Your task to perform on an android device: Turn off the flashlight Image 0: 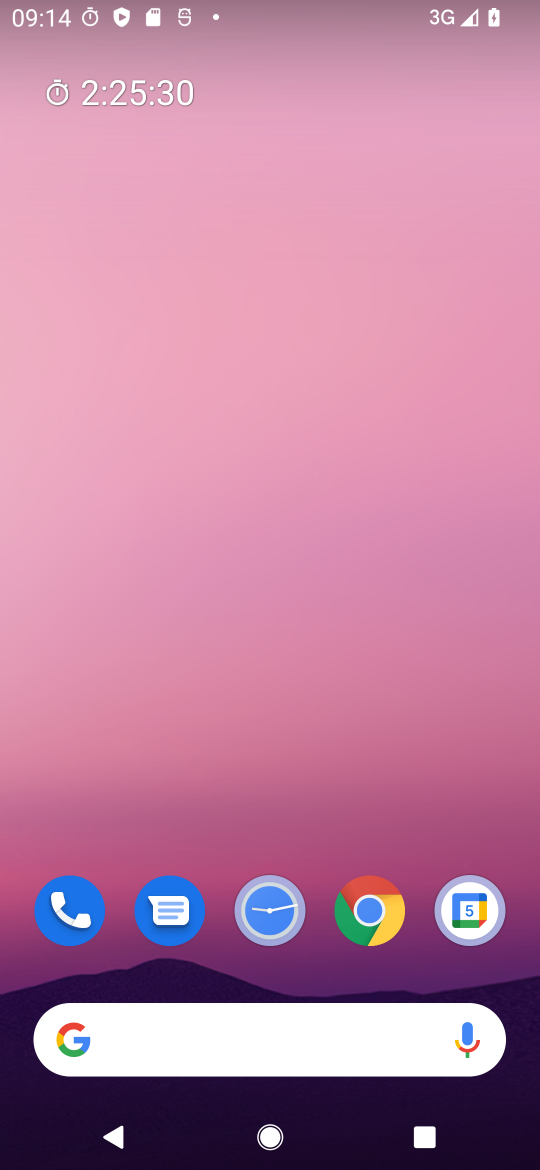
Step 0: drag from (261, 6) to (446, 1149)
Your task to perform on an android device: Turn off the flashlight Image 1: 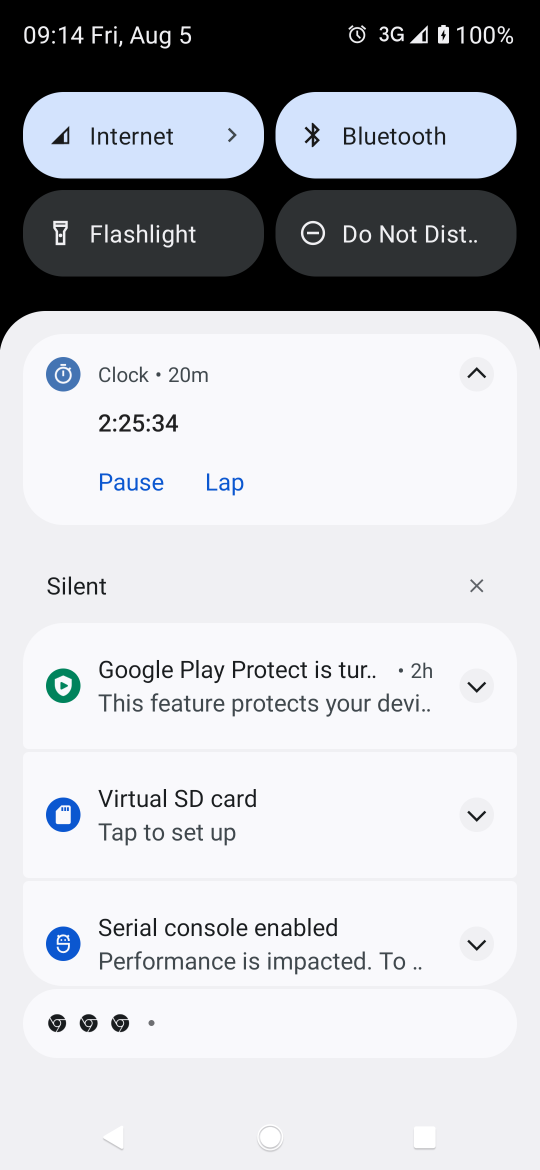
Step 1: click (146, 231)
Your task to perform on an android device: Turn off the flashlight Image 2: 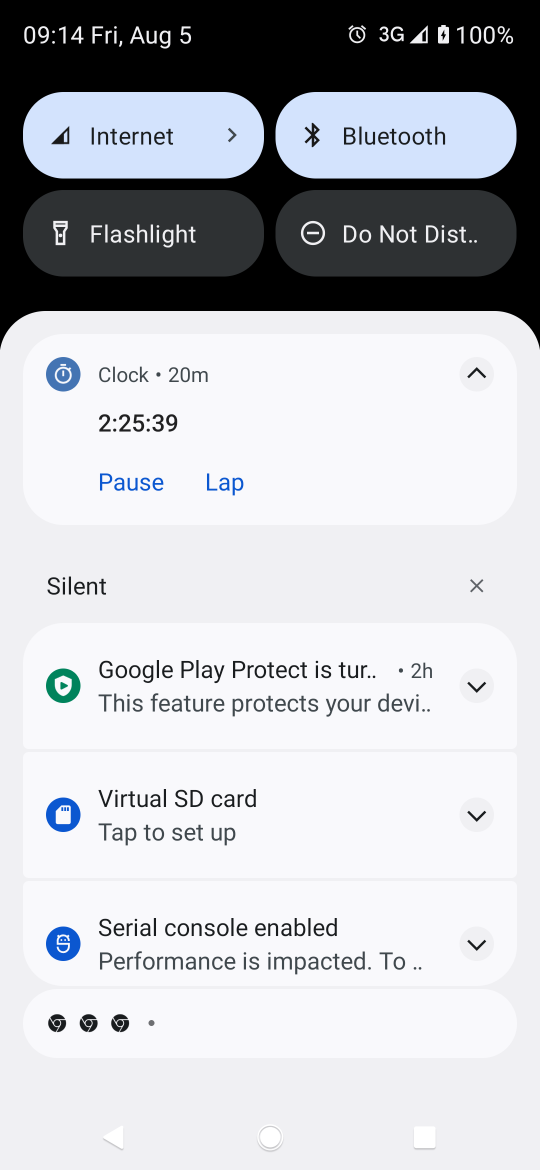
Step 2: task complete